Your task to perform on an android device: change notifications settings Image 0: 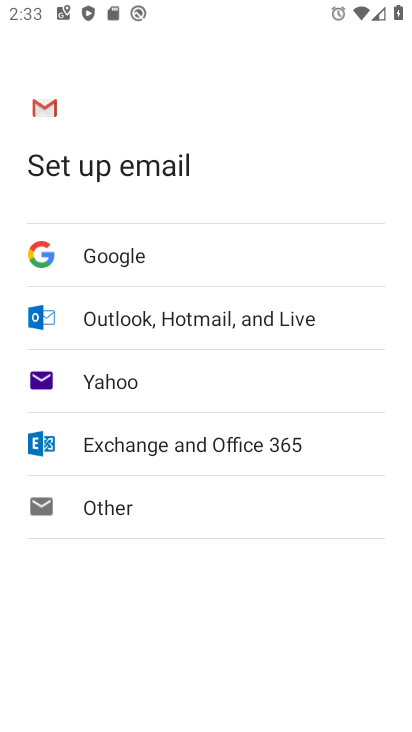
Step 0: press back button
Your task to perform on an android device: change notifications settings Image 1: 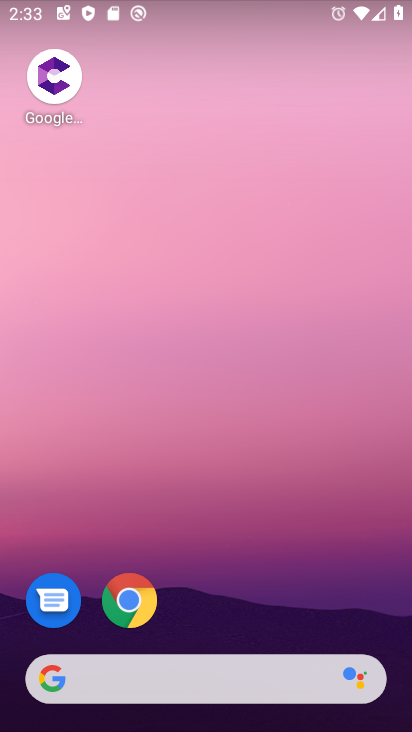
Step 1: drag from (245, 553) to (191, 30)
Your task to perform on an android device: change notifications settings Image 2: 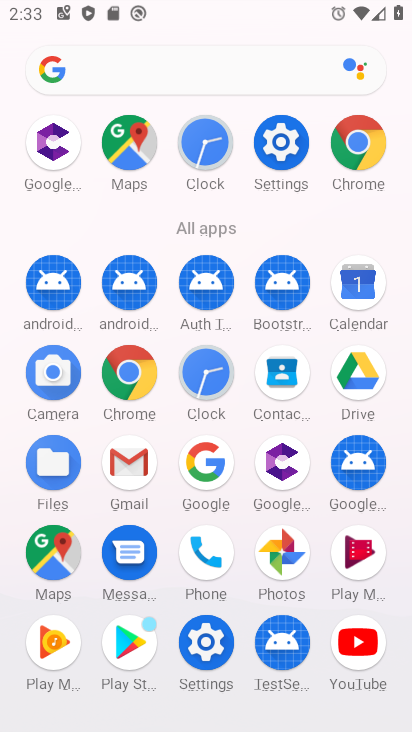
Step 2: drag from (12, 527) to (10, 233)
Your task to perform on an android device: change notifications settings Image 3: 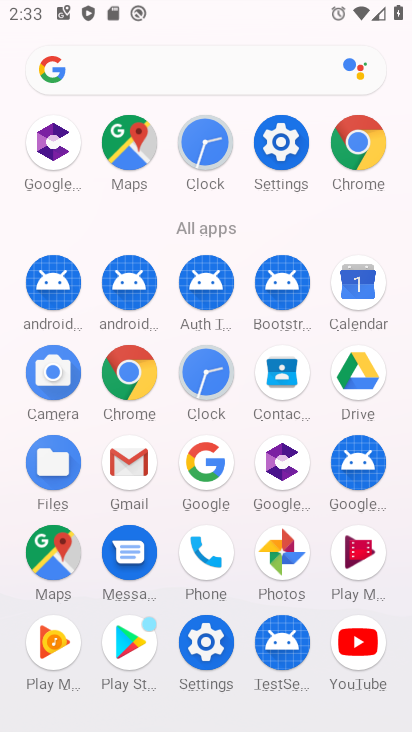
Step 3: click (205, 638)
Your task to perform on an android device: change notifications settings Image 4: 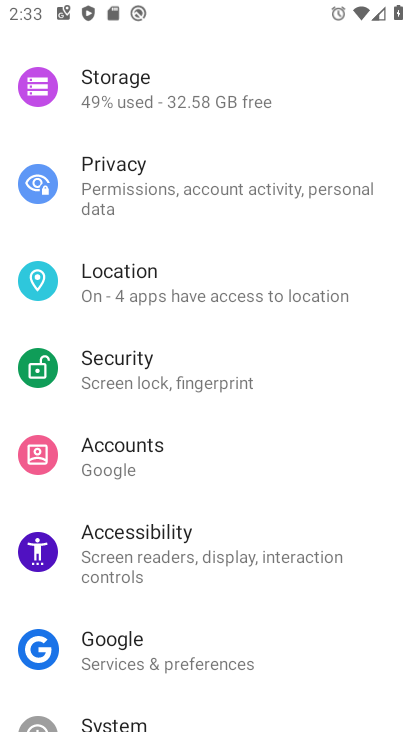
Step 4: drag from (240, 192) to (249, 610)
Your task to perform on an android device: change notifications settings Image 5: 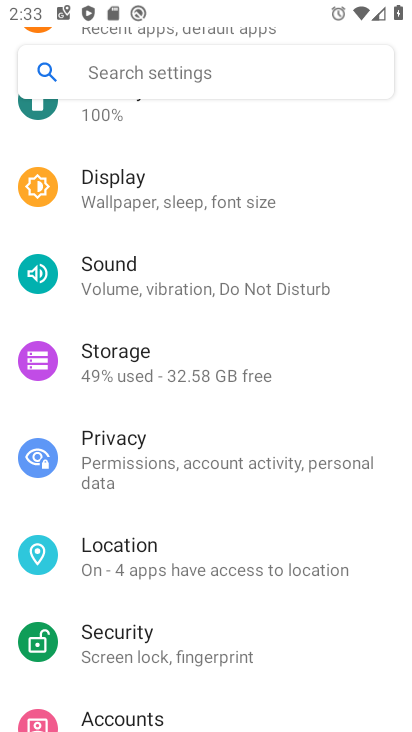
Step 5: drag from (274, 210) to (306, 572)
Your task to perform on an android device: change notifications settings Image 6: 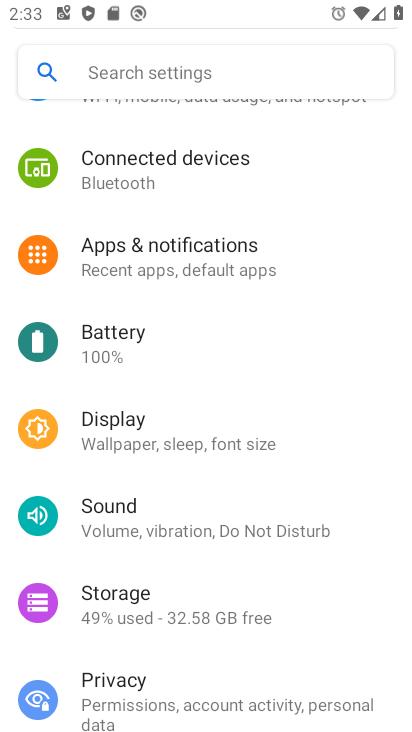
Step 6: click (208, 235)
Your task to perform on an android device: change notifications settings Image 7: 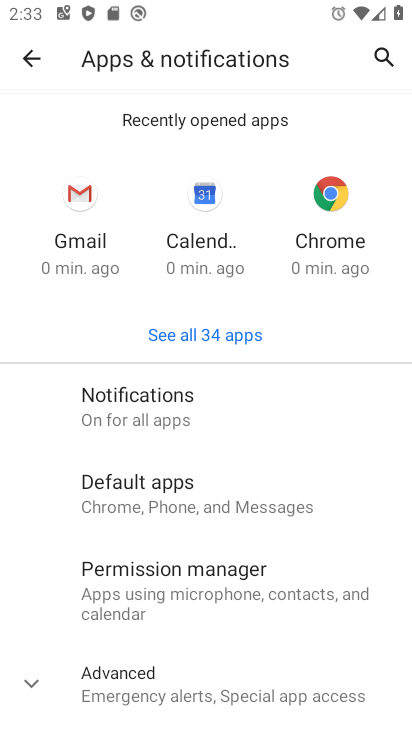
Step 7: click (47, 677)
Your task to perform on an android device: change notifications settings Image 8: 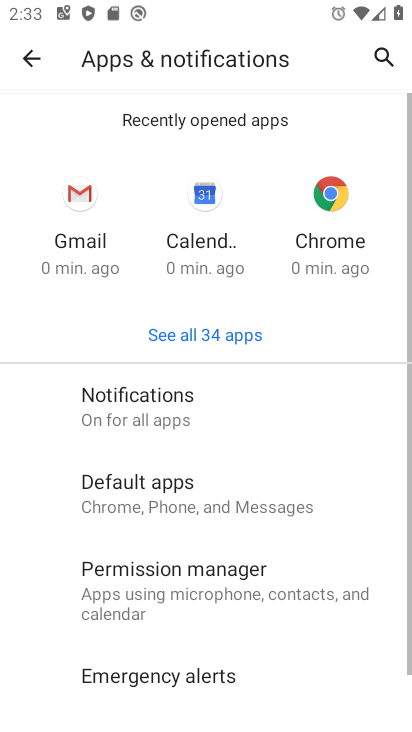
Step 8: drag from (266, 593) to (263, 129)
Your task to perform on an android device: change notifications settings Image 9: 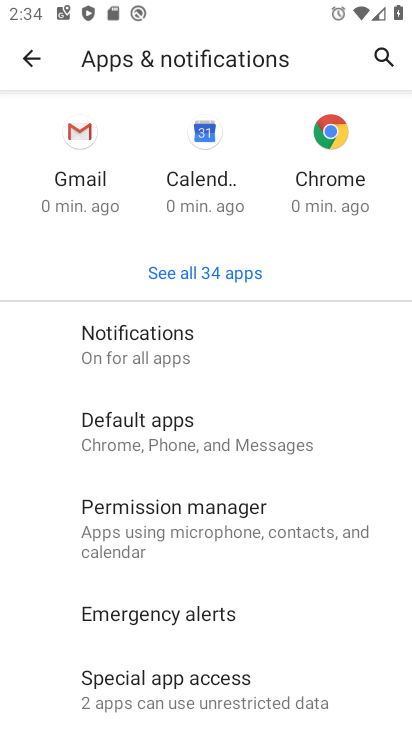
Step 9: click (172, 369)
Your task to perform on an android device: change notifications settings Image 10: 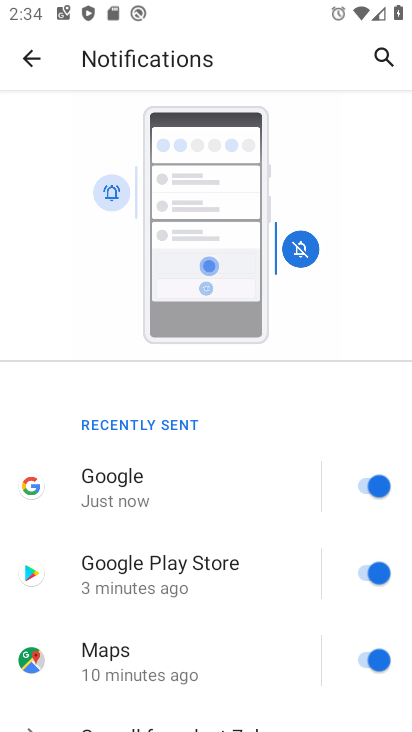
Step 10: drag from (237, 596) to (236, 128)
Your task to perform on an android device: change notifications settings Image 11: 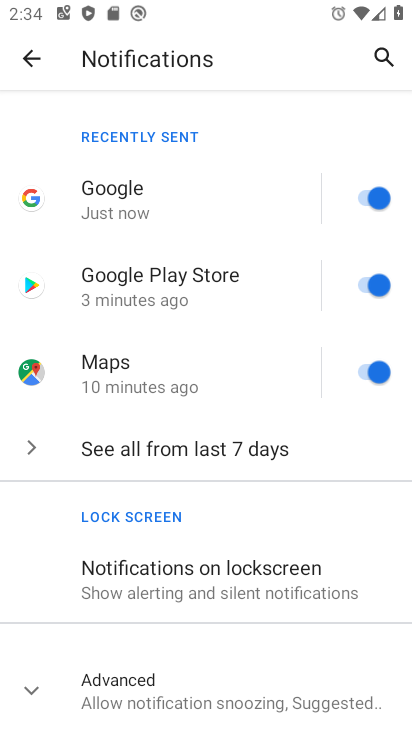
Step 11: click (46, 688)
Your task to perform on an android device: change notifications settings Image 12: 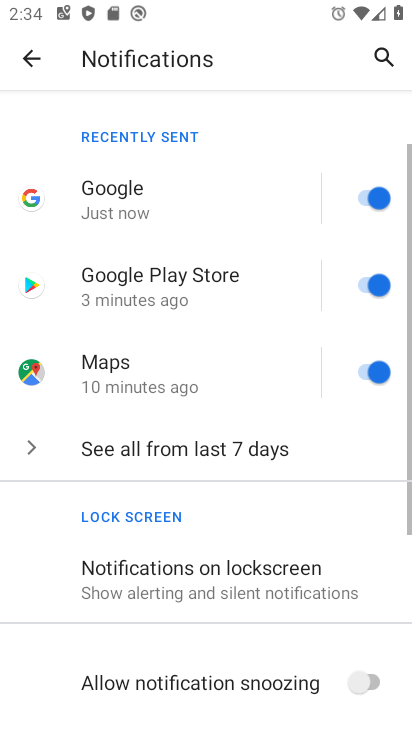
Step 12: task complete